Your task to perform on an android device: delete browsing data in the chrome app Image 0: 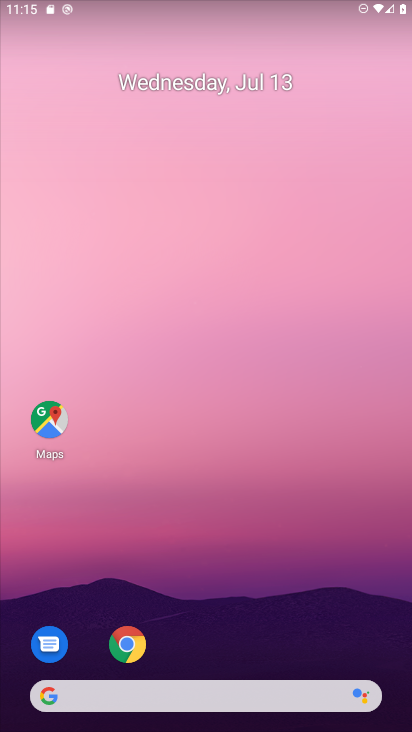
Step 0: press home button
Your task to perform on an android device: delete browsing data in the chrome app Image 1: 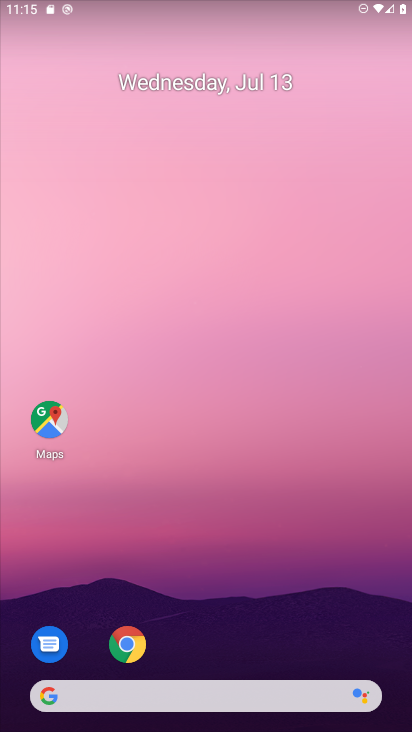
Step 1: click (129, 643)
Your task to perform on an android device: delete browsing data in the chrome app Image 2: 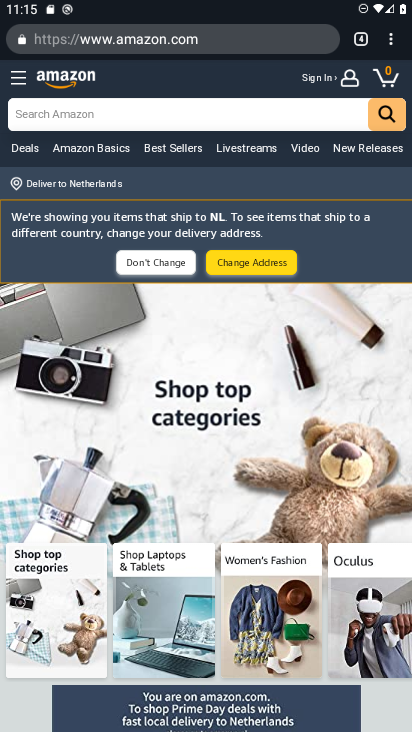
Step 2: click (393, 38)
Your task to perform on an android device: delete browsing data in the chrome app Image 3: 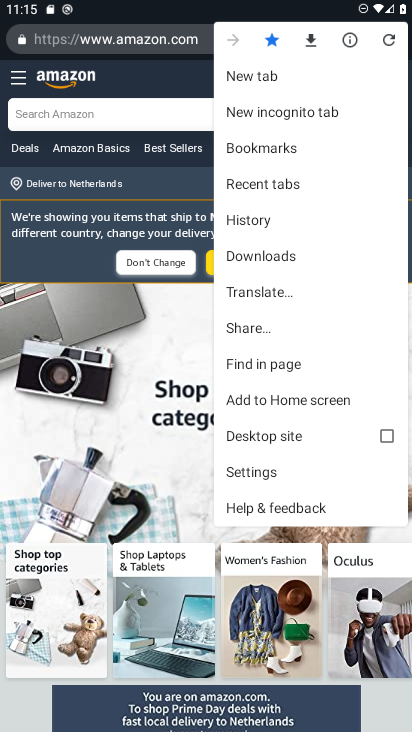
Step 3: click (240, 218)
Your task to perform on an android device: delete browsing data in the chrome app Image 4: 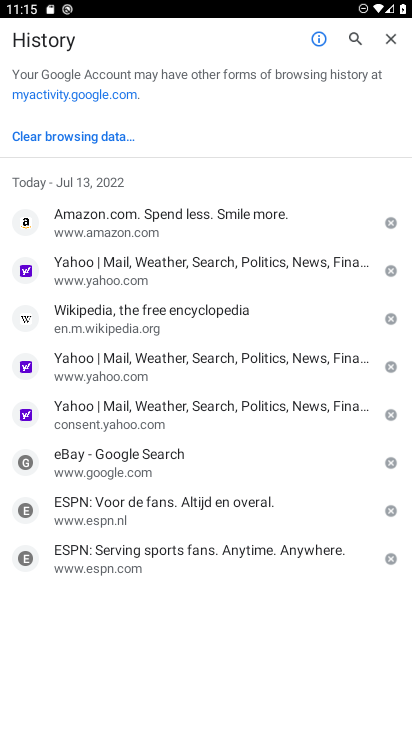
Step 4: click (83, 131)
Your task to perform on an android device: delete browsing data in the chrome app Image 5: 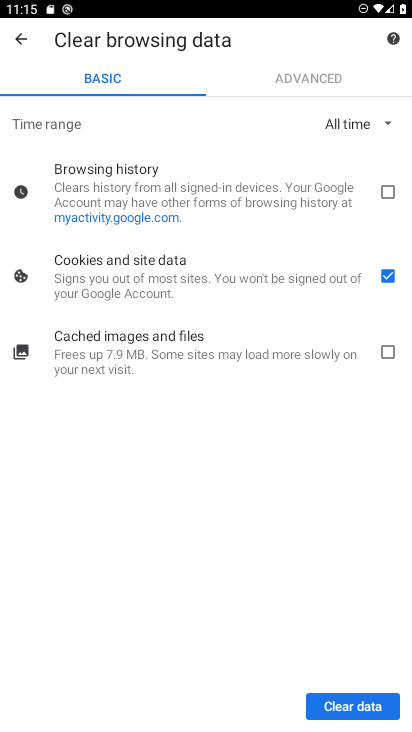
Step 5: click (394, 191)
Your task to perform on an android device: delete browsing data in the chrome app Image 6: 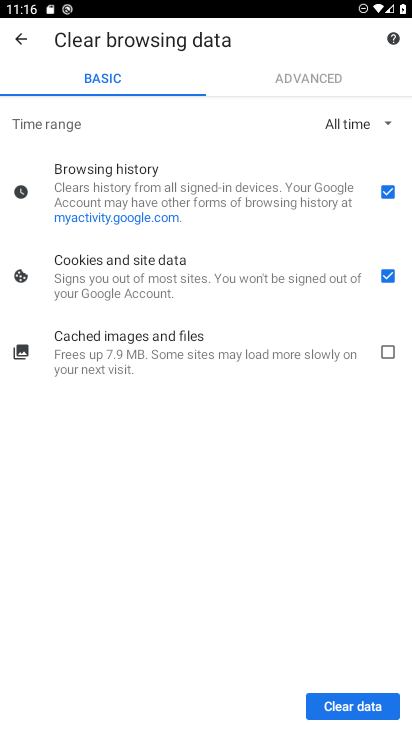
Step 6: click (386, 273)
Your task to perform on an android device: delete browsing data in the chrome app Image 7: 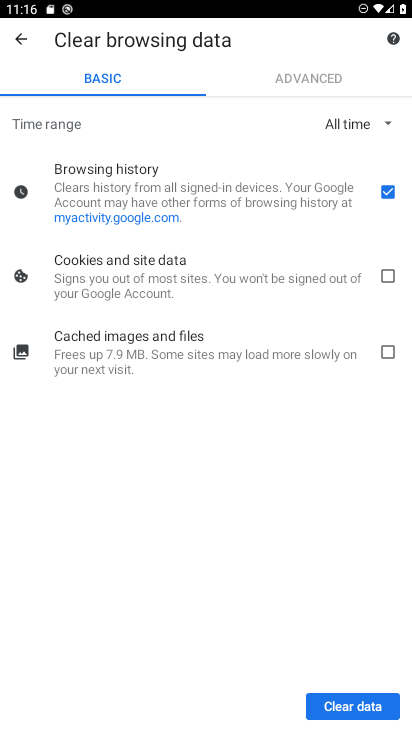
Step 7: click (348, 712)
Your task to perform on an android device: delete browsing data in the chrome app Image 8: 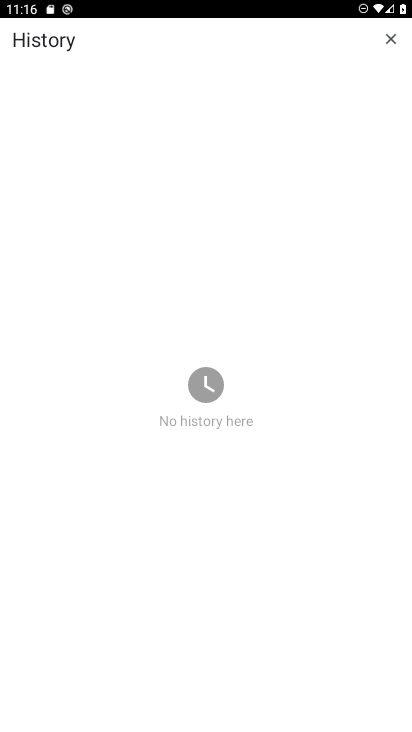
Step 8: task complete